Your task to perform on an android device: Open settings Image 0: 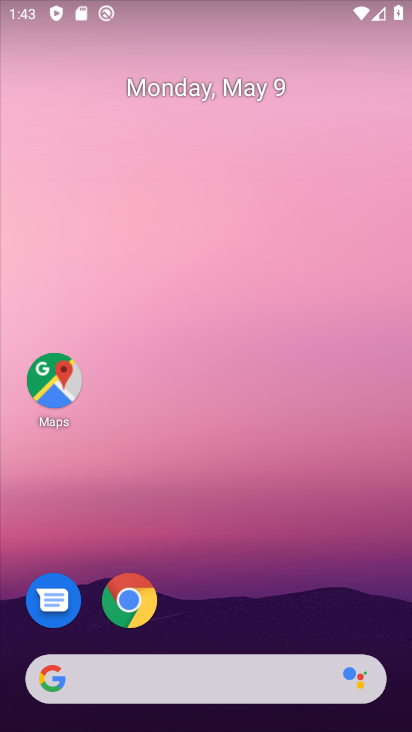
Step 0: drag from (314, 567) to (269, 12)
Your task to perform on an android device: Open settings Image 1: 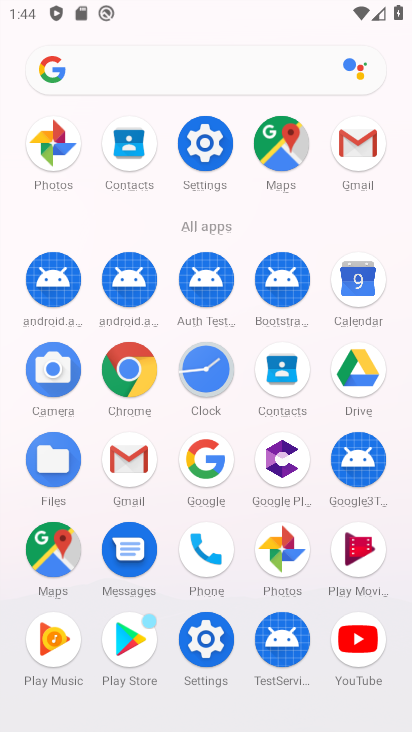
Step 1: drag from (11, 494) to (15, 190)
Your task to perform on an android device: Open settings Image 2: 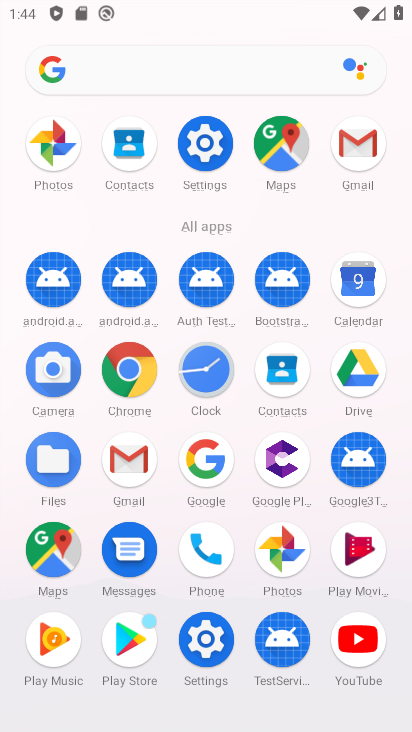
Step 2: click (207, 635)
Your task to perform on an android device: Open settings Image 3: 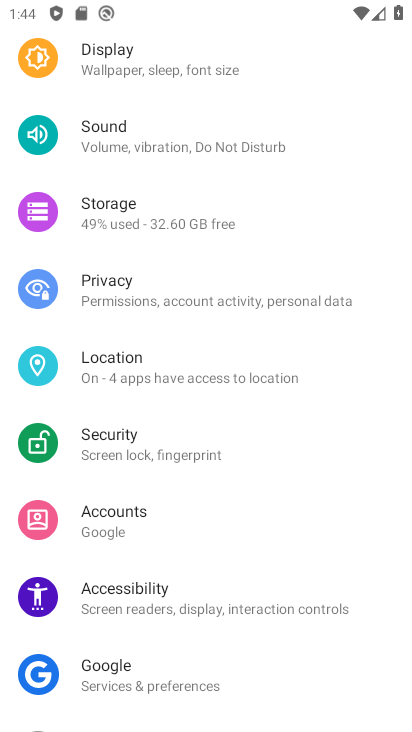
Step 3: task complete